Your task to perform on an android device: What's the weather today? Image 0: 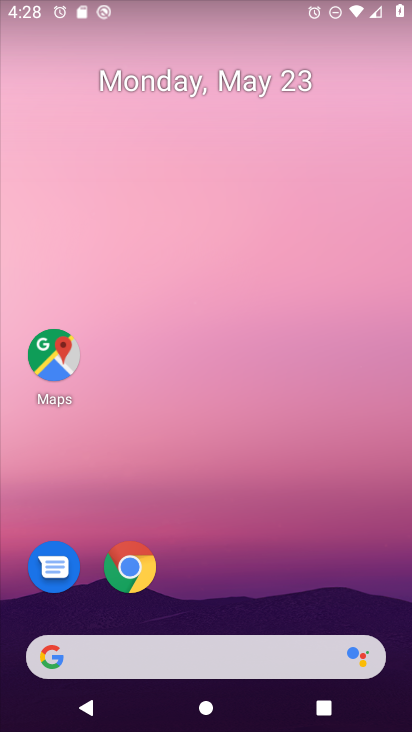
Step 0: click (178, 658)
Your task to perform on an android device: What's the weather today? Image 1: 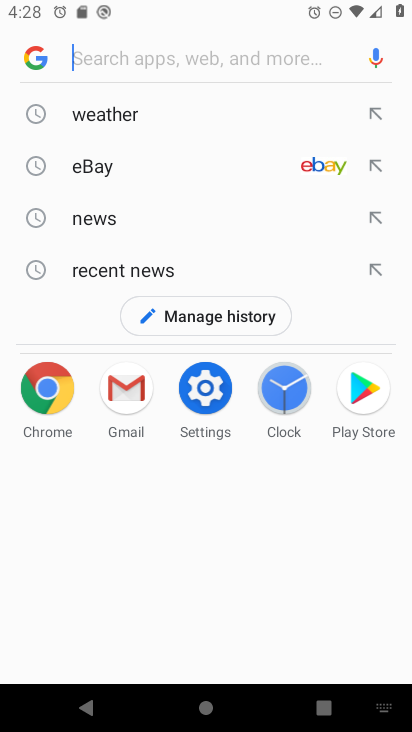
Step 1: click (112, 93)
Your task to perform on an android device: What's the weather today? Image 2: 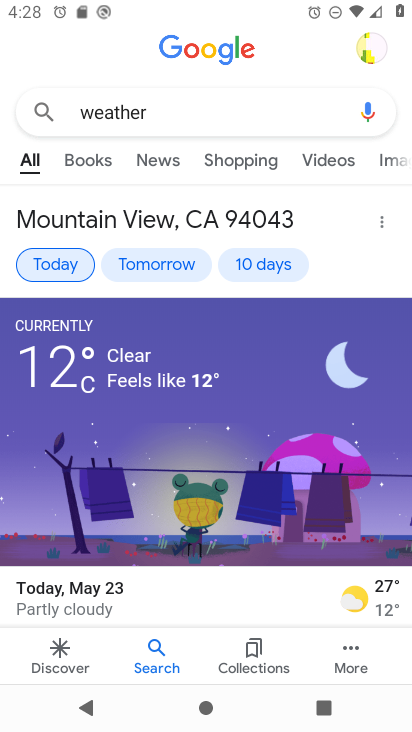
Step 2: task complete